Your task to perform on an android device: toggle airplane mode Image 0: 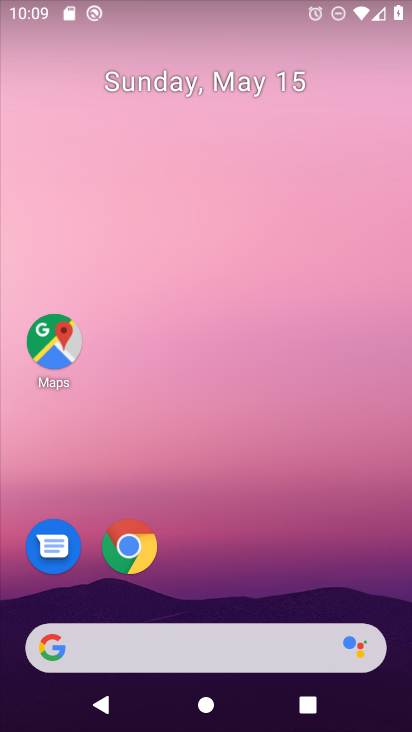
Step 0: drag from (257, 568) to (186, 78)
Your task to perform on an android device: toggle airplane mode Image 1: 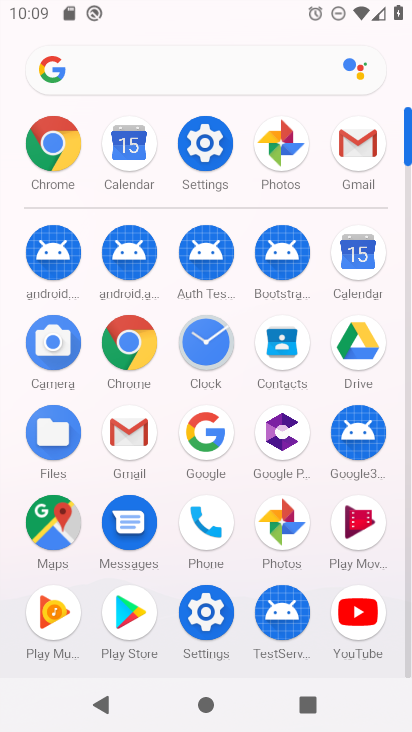
Step 1: click (198, 145)
Your task to perform on an android device: toggle airplane mode Image 2: 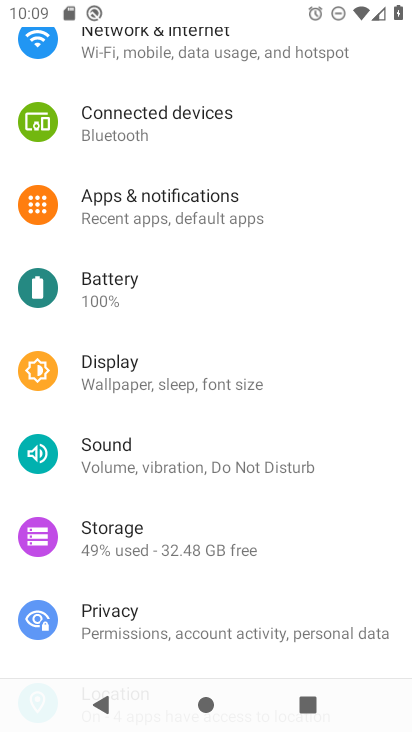
Step 2: drag from (242, 152) to (262, 361)
Your task to perform on an android device: toggle airplane mode Image 3: 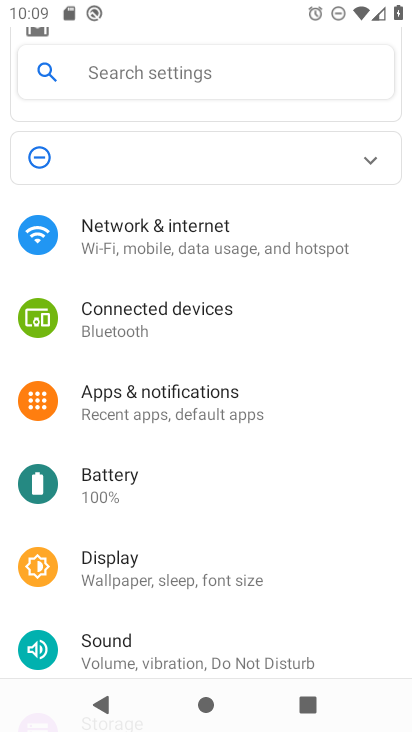
Step 3: click (251, 225)
Your task to perform on an android device: toggle airplane mode Image 4: 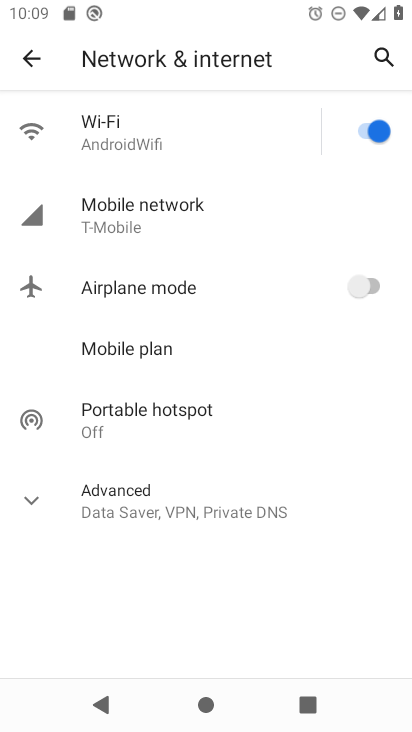
Step 4: click (357, 281)
Your task to perform on an android device: toggle airplane mode Image 5: 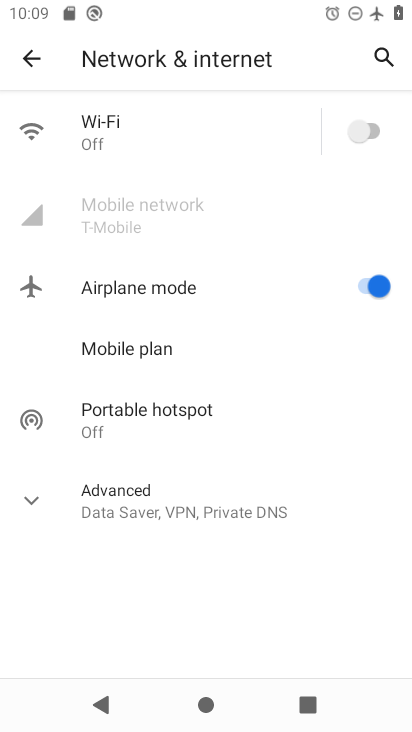
Step 5: task complete